Your task to perform on an android device: Open maps Image 0: 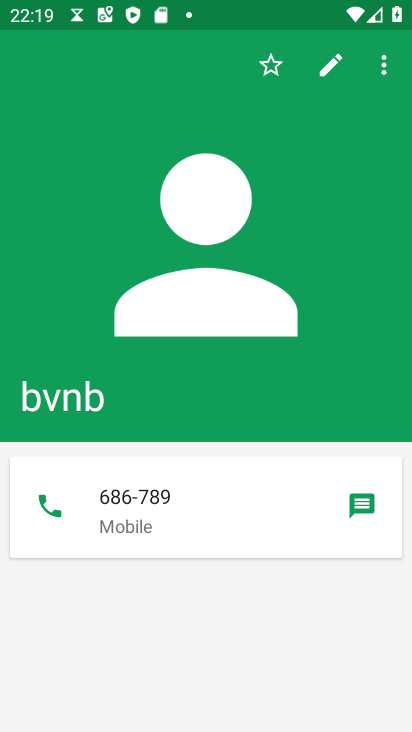
Step 0: press home button
Your task to perform on an android device: Open maps Image 1: 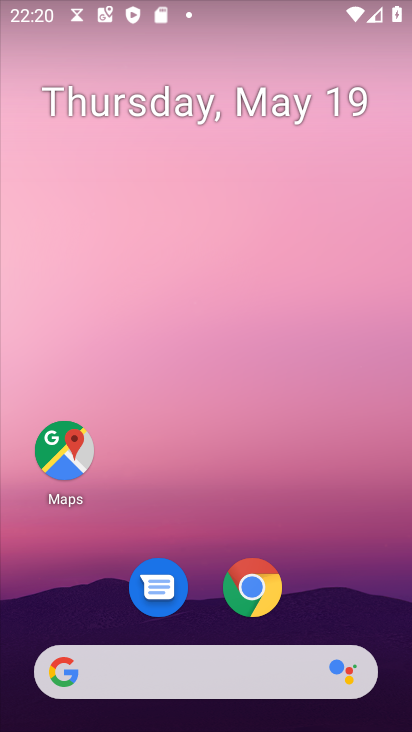
Step 1: click (75, 459)
Your task to perform on an android device: Open maps Image 2: 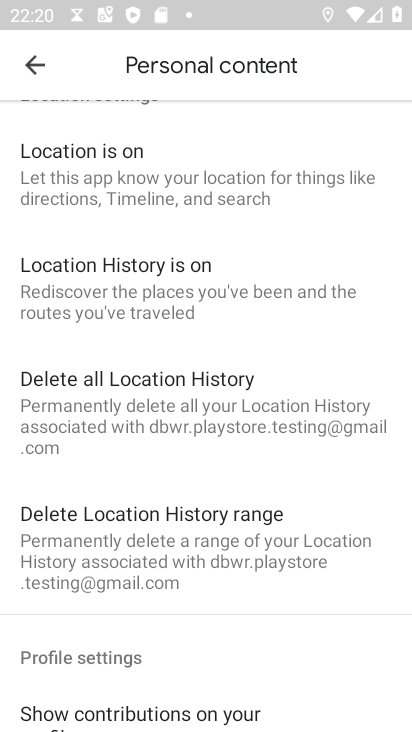
Step 2: click (24, 58)
Your task to perform on an android device: Open maps Image 3: 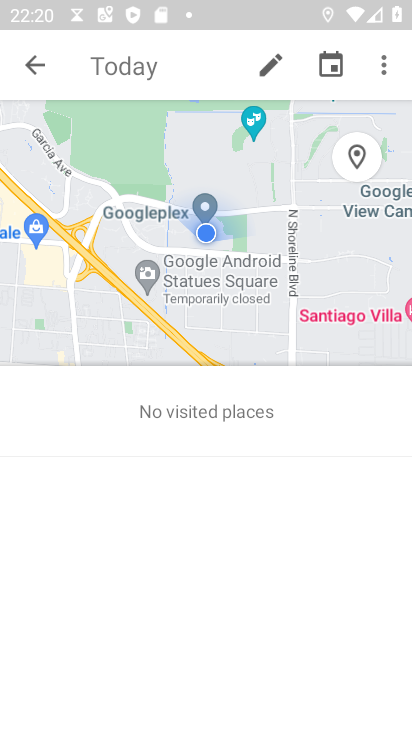
Step 3: click (24, 58)
Your task to perform on an android device: Open maps Image 4: 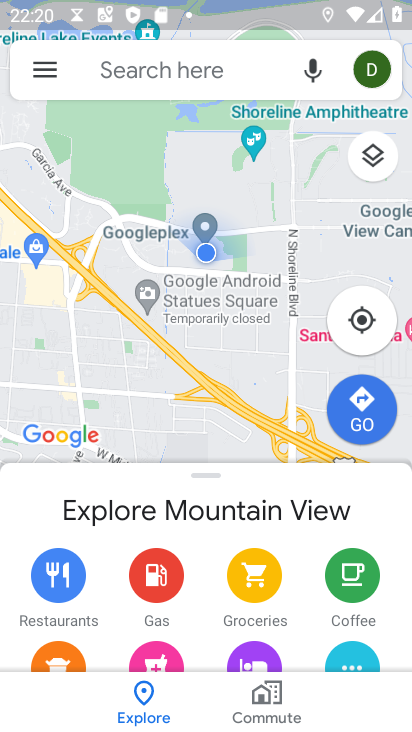
Step 4: task complete